Your task to perform on an android device: change text size in settings app Image 0: 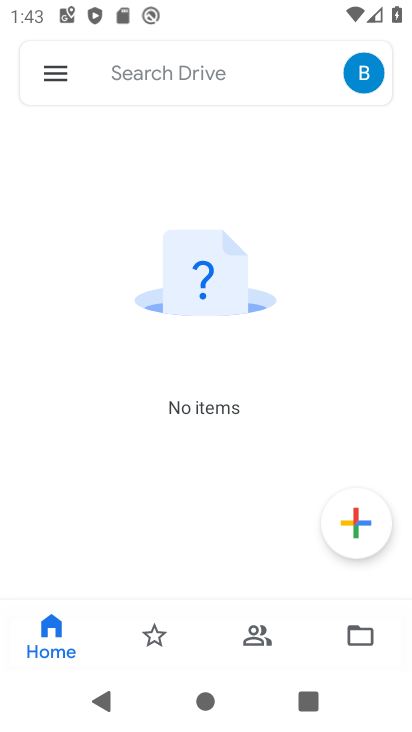
Step 0: press home button
Your task to perform on an android device: change text size in settings app Image 1: 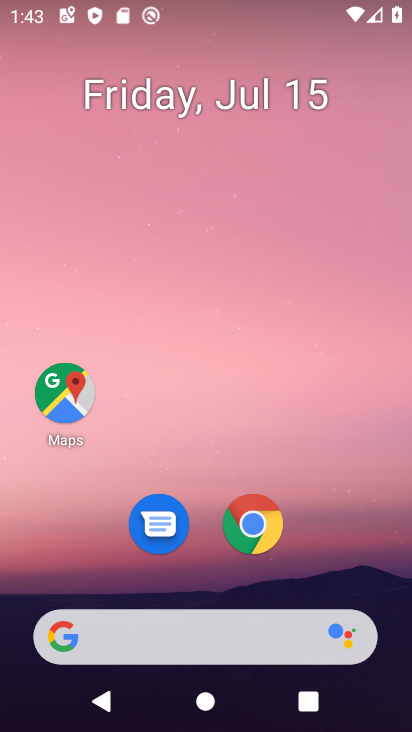
Step 1: drag from (250, 646) to (288, 155)
Your task to perform on an android device: change text size in settings app Image 2: 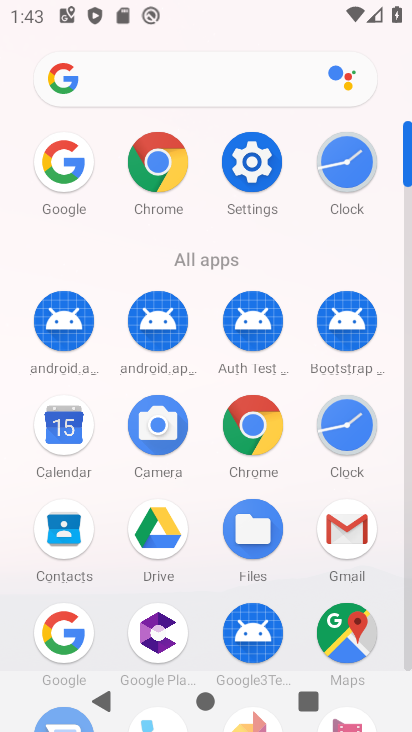
Step 2: click (252, 162)
Your task to perform on an android device: change text size in settings app Image 3: 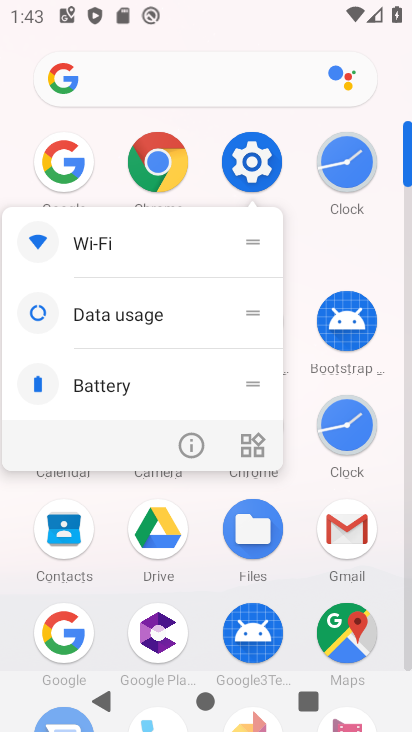
Step 3: click (253, 161)
Your task to perform on an android device: change text size in settings app Image 4: 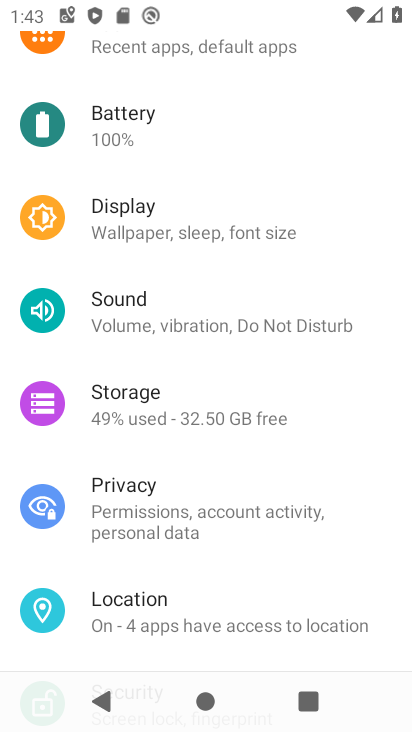
Step 4: click (173, 232)
Your task to perform on an android device: change text size in settings app Image 5: 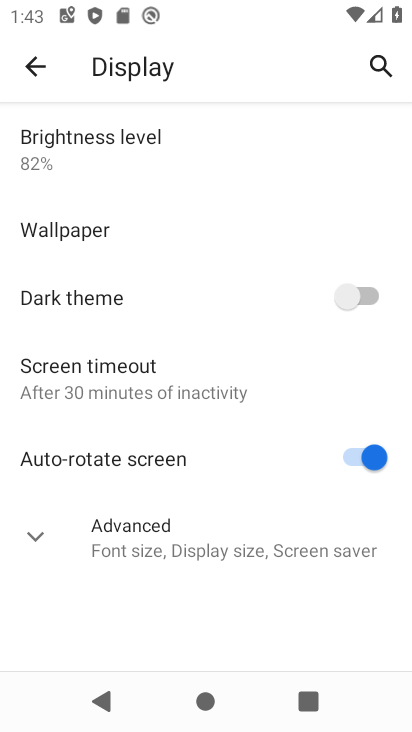
Step 5: click (123, 529)
Your task to perform on an android device: change text size in settings app Image 6: 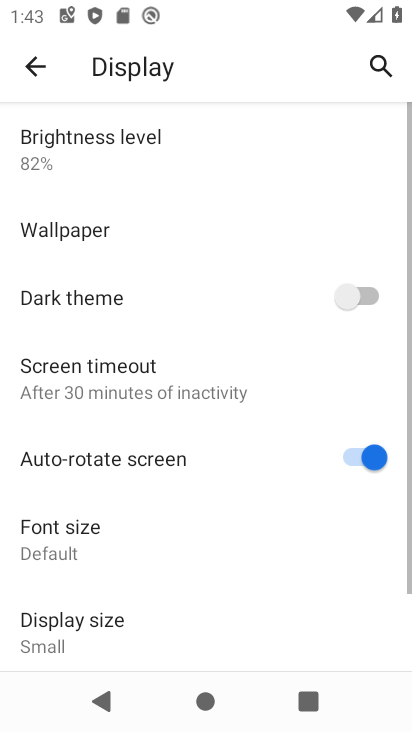
Step 6: click (80, 529)
Your task to perform on an android device: change text size in settings app Image 7: 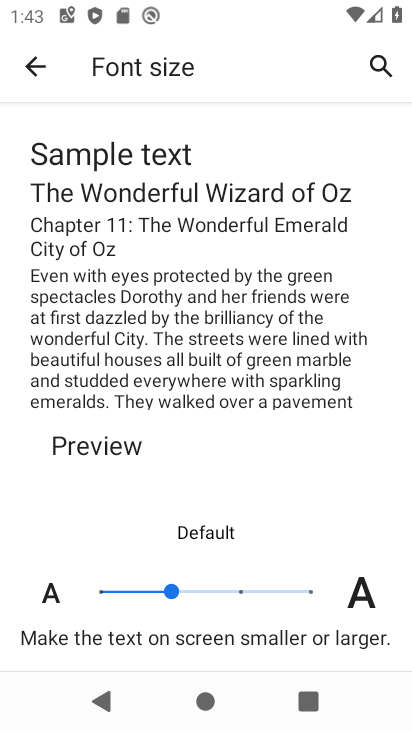
Step 7: click (101, 590)
Your task to perform on an android device: change text size in settings app Image 8: 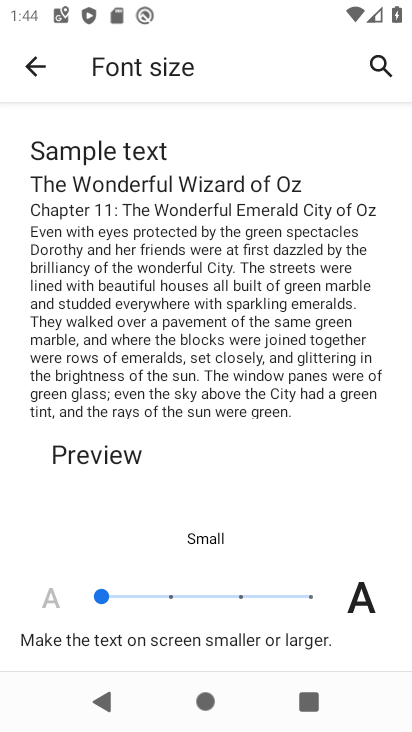
Step 8: task complete